Your task to perform on an android device: Go to accessibility settings Image 0: 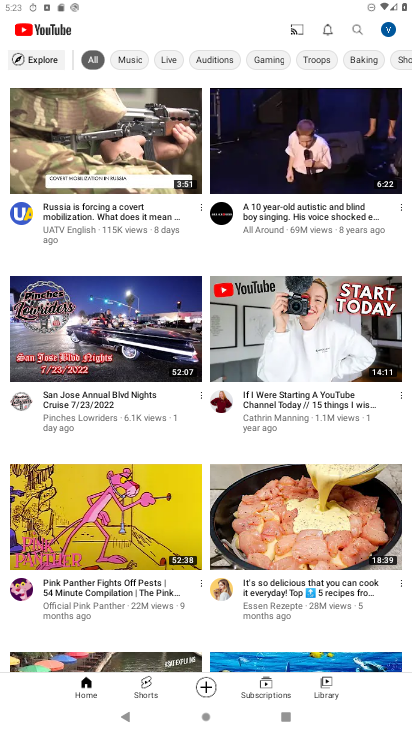
Step 0: press home button
Your task to perform on an android device: Go to accessibility settings Image 1: 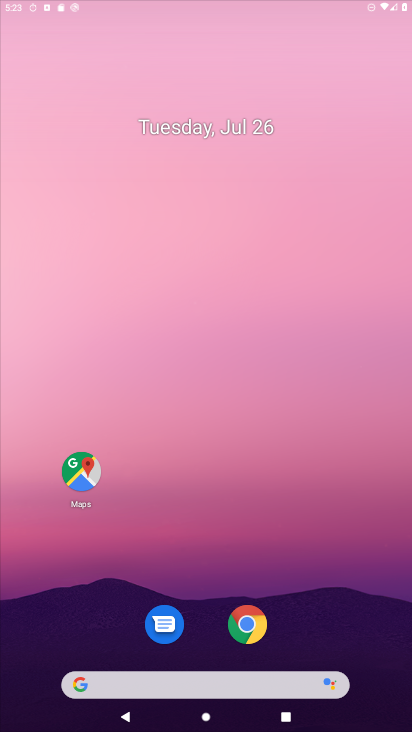
Step 1: drag from (252, 678) to (285, 37)
Your task to perform on an android device: Go to accessibility settings Image 2: 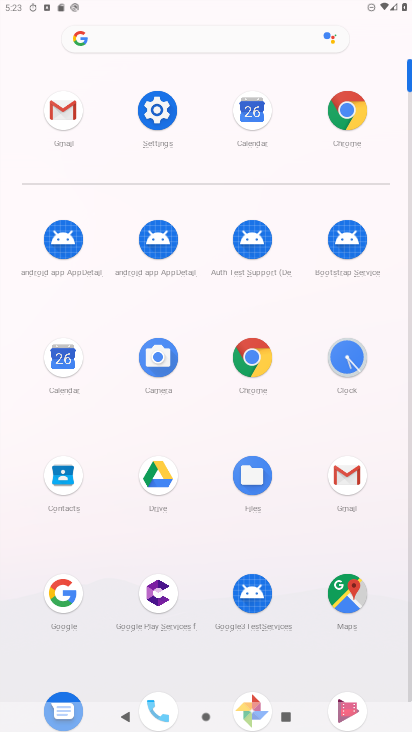
Step 2: click (159, 116)
Your task to perform on an android device: Go to accessibility settings Image 3: 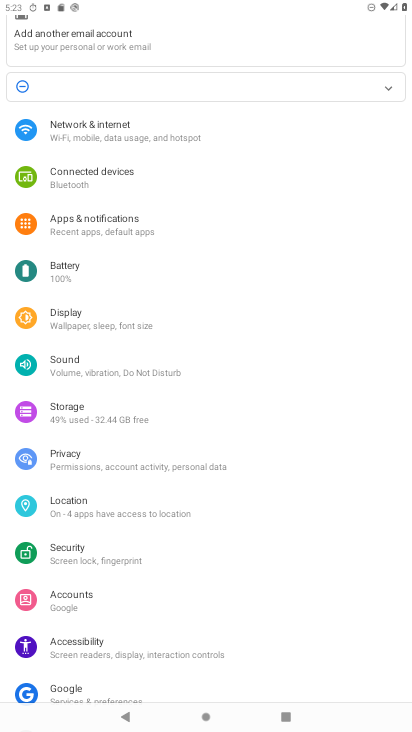
Step 3: drag from (209, 669) to (223, 111)
Your task to perform on an android device: Go to accessibility settings Image 4: 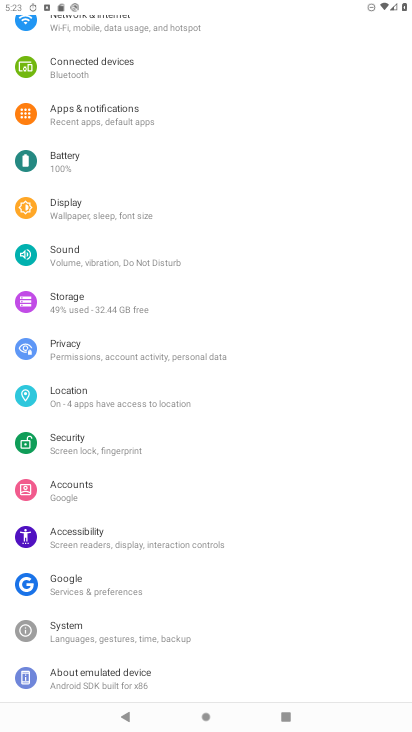
Step 4: click (122, 542)
Your task to perform on an android device: Go to accessibility settings Image 5: 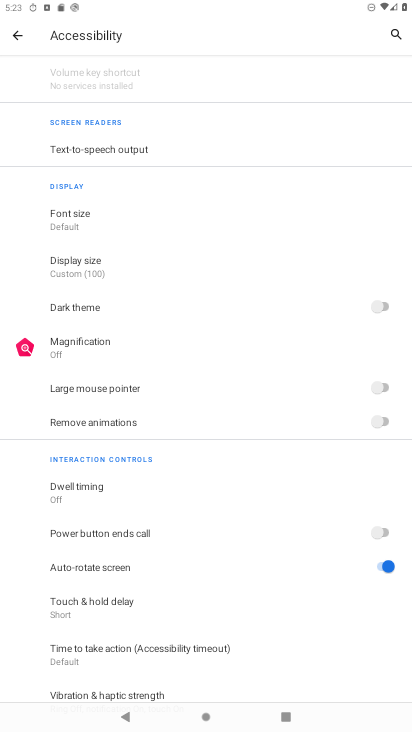
Step 5: task complete